Your task to perform on an android device: Open network settings Image 0: 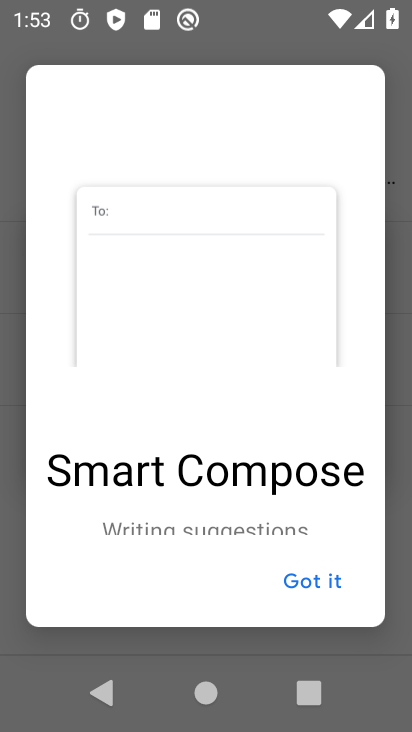
Step 0: press home button
Your task to perform on an android device: Open network settings Image 1: 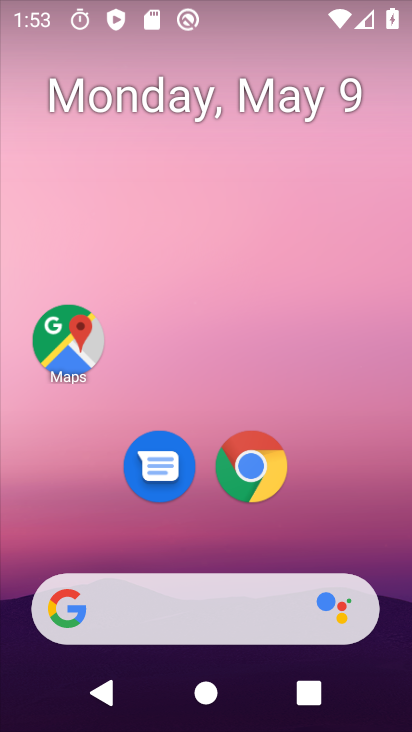
Step 1: drag from (279, 486) to (334, 13)
Your task to perform on an android device: Open network settings Image 2: 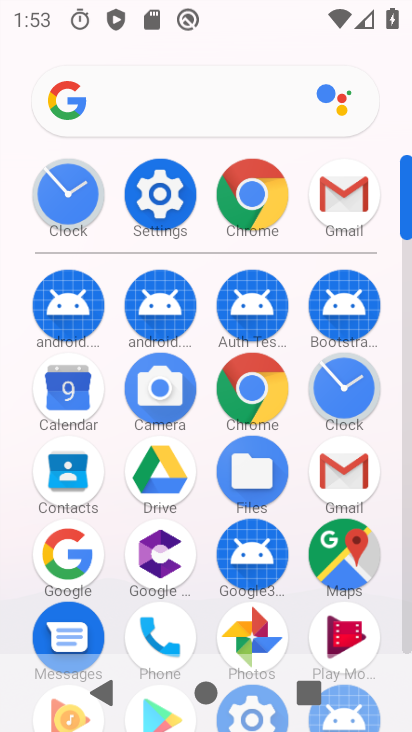
Step 2: click (143, 200)
Your task to perform on an android device: Open network settings Image 3: 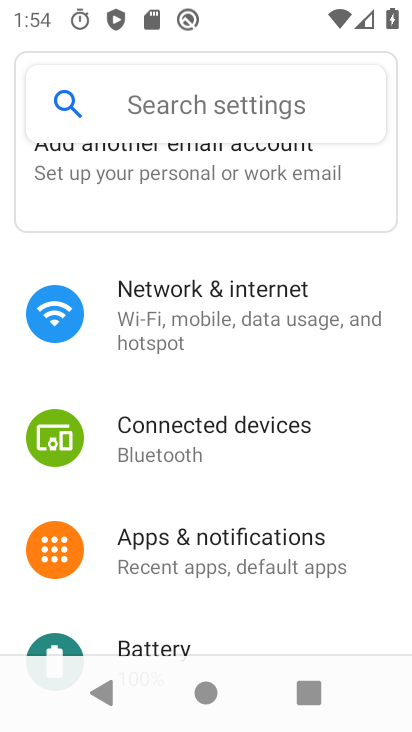
Step 3: click (193, 334)
Your task to perform on an android device: Open network settings Image 4: 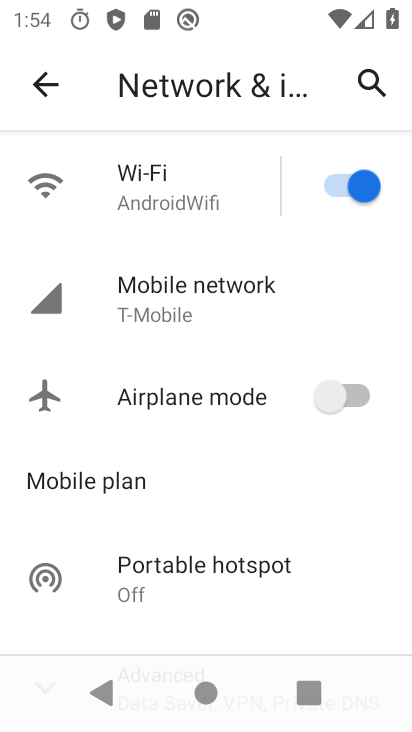
Step 4: click (233, 326)
Your task to perform on an android device: Open network settings Image 5: 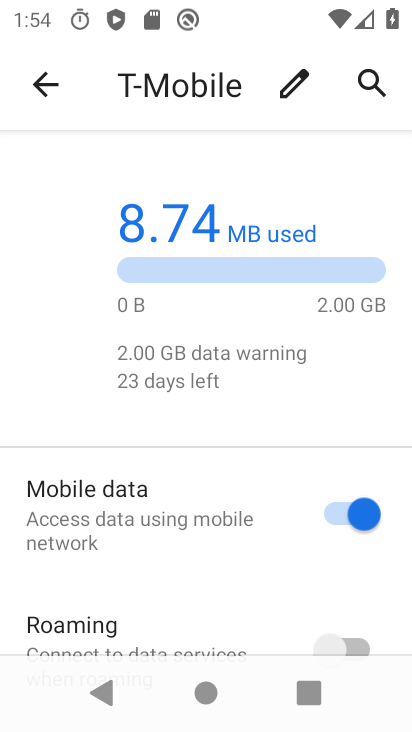
Step 5: task complete